Your task to perform on an android device: Add dell xps to the cart on ebay, then select checkout. Image 0: 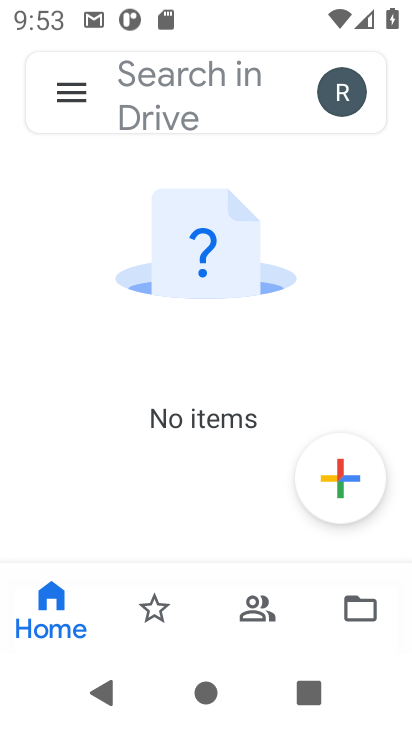
Step 0: press home button
Your task to perform on an android device: Add dell xps to the cart on ebay, then select checkout. Image 1: 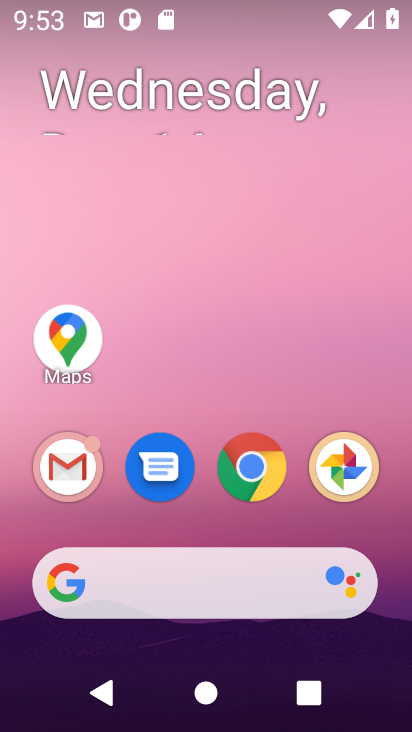
Step 1: click (256, 436)
Your task to perform on an android device: Add dell xps to the cart on ebay, then select checkout. Image 2: 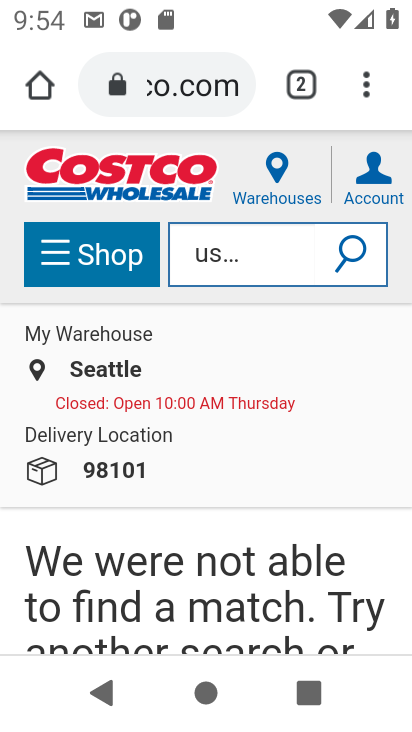
Step 2: task complete